Your task to perform on an android device: Search for "razer deathadder" on target, select the first entry, and add it to the cart. Image 0: 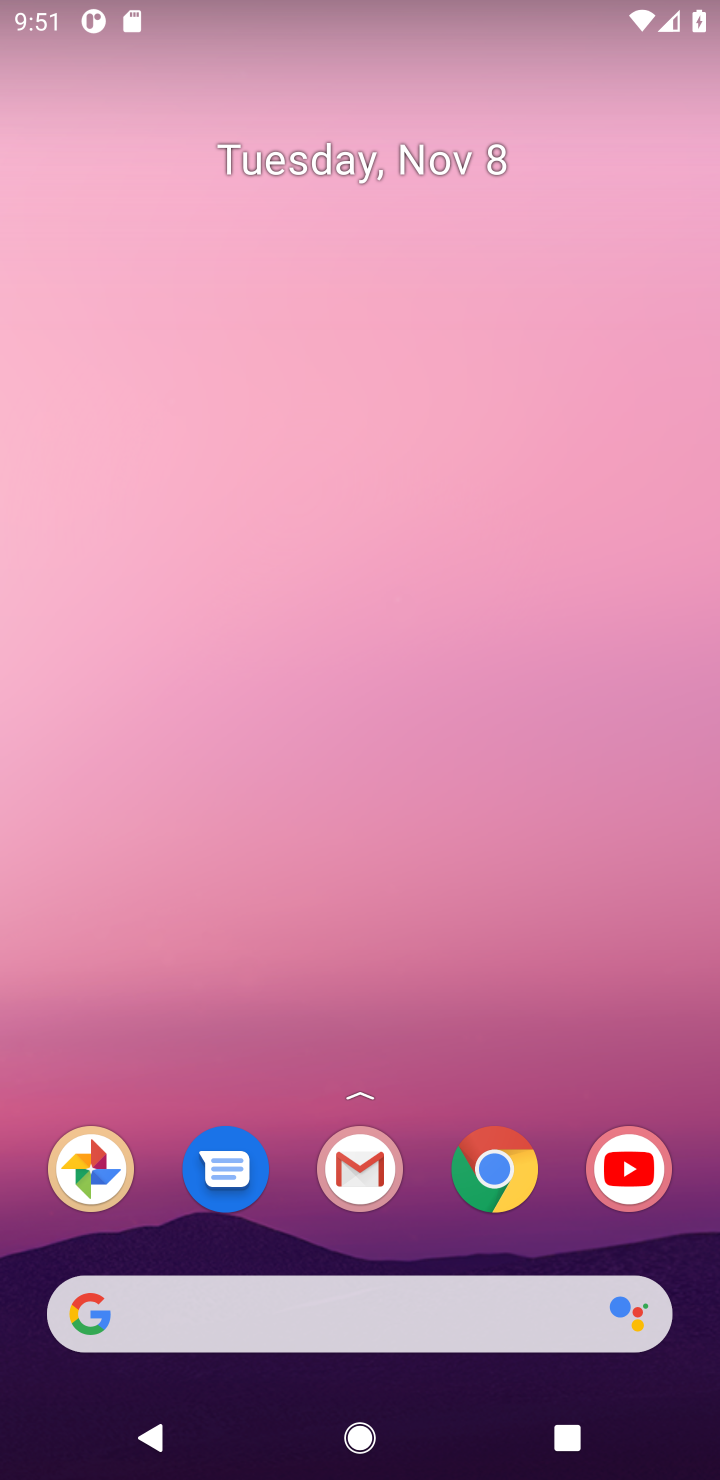
Step 0: click (501, 1169)
Your task to perform on an android device: Search for "razer deathadder" on target, select the first entry, and add it to the cart. Image 1: 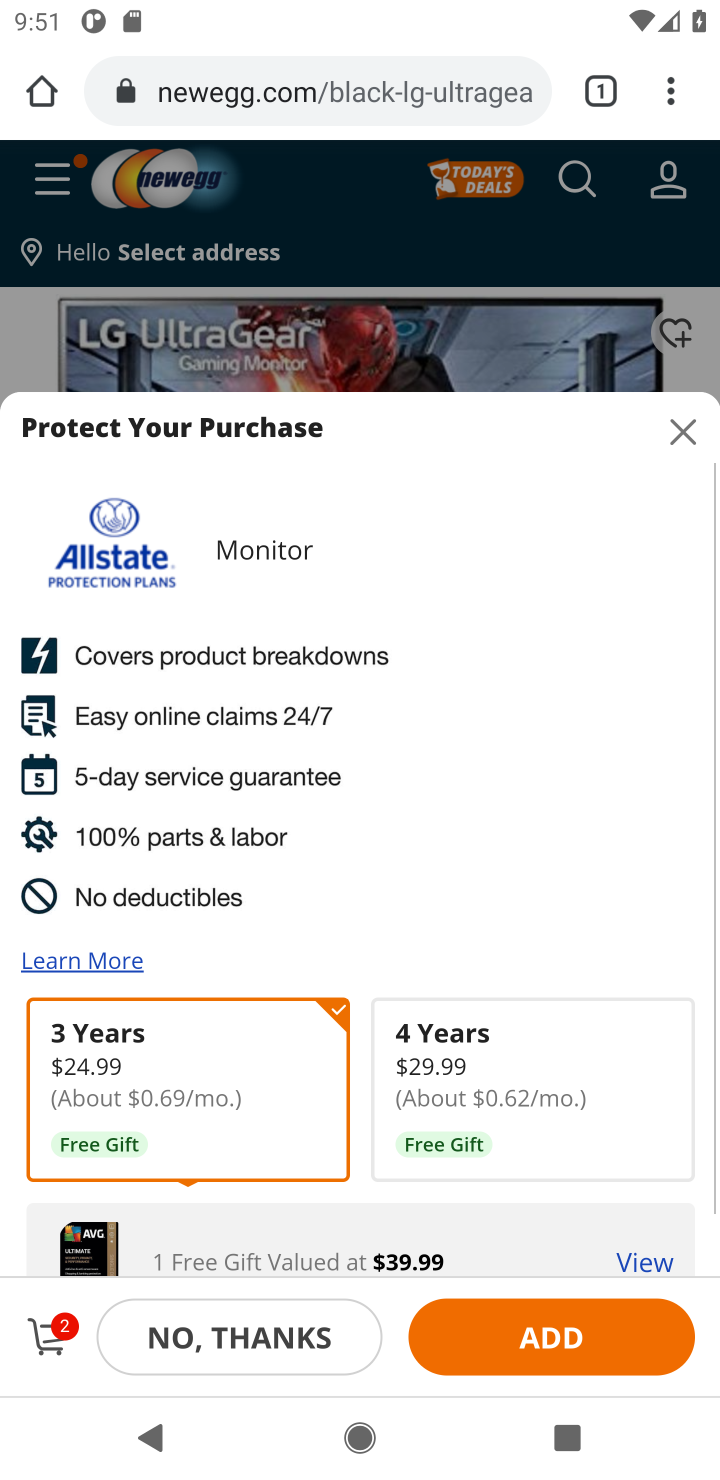
Step 1: click (474, 87)
Your task to perform on an android device: Search for "razer deathadder" on target, select the first entry, and add it to the cart. Image 2: 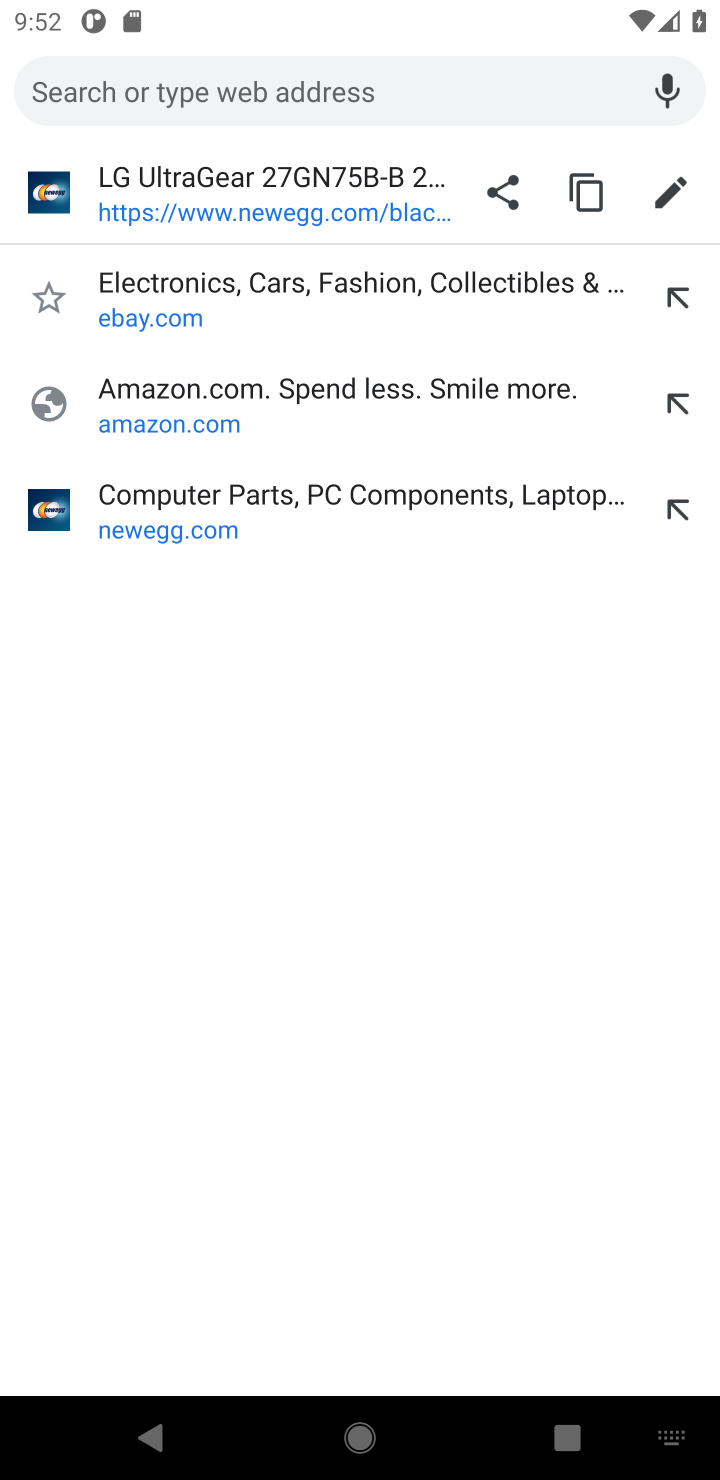
Step 2: type "target"
Your task to perform on an android device: Search for "razer deathadder" on target, select the first entry, and add it to the cart. Image 3: 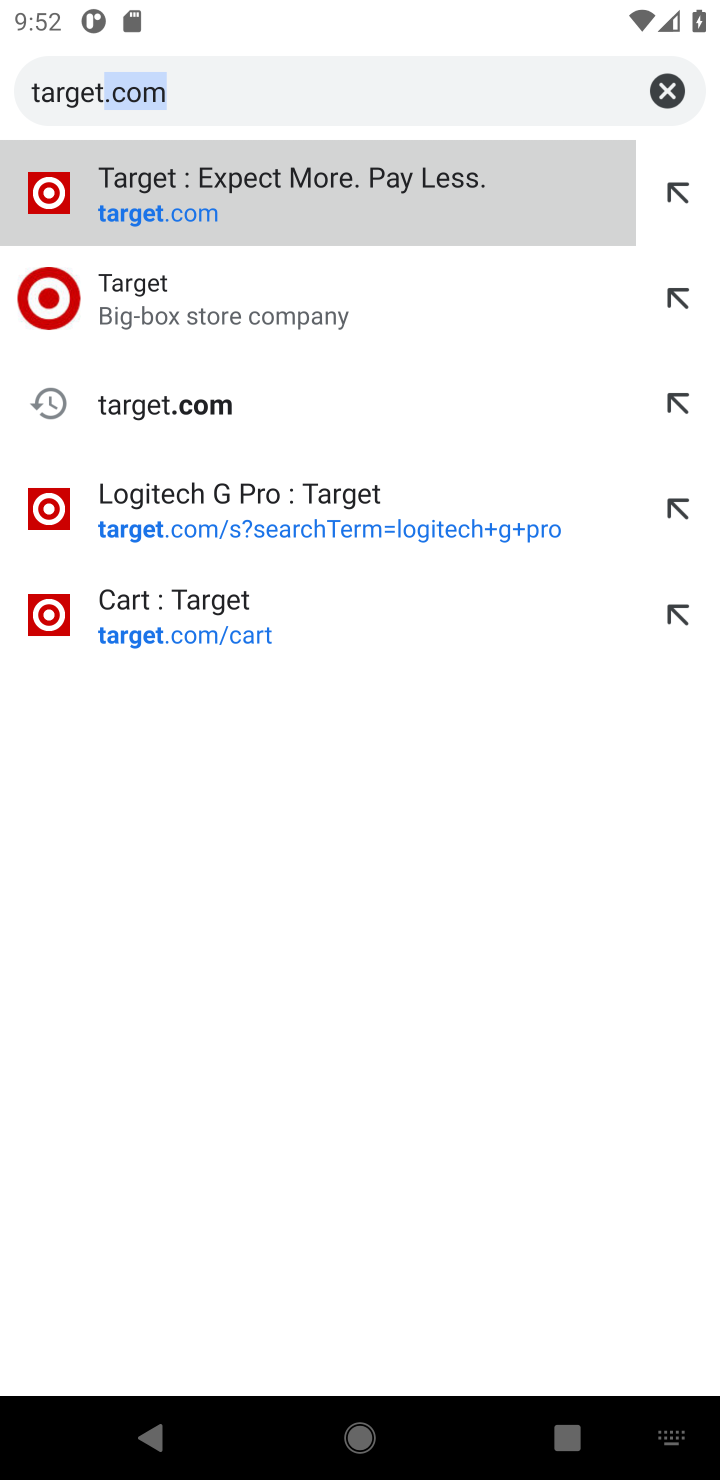
Step 3: click (221, 290)
Your task to perform on an android device: Search for "razer deathadder" on target, select the first entry, and add it to the cart. Image 4: 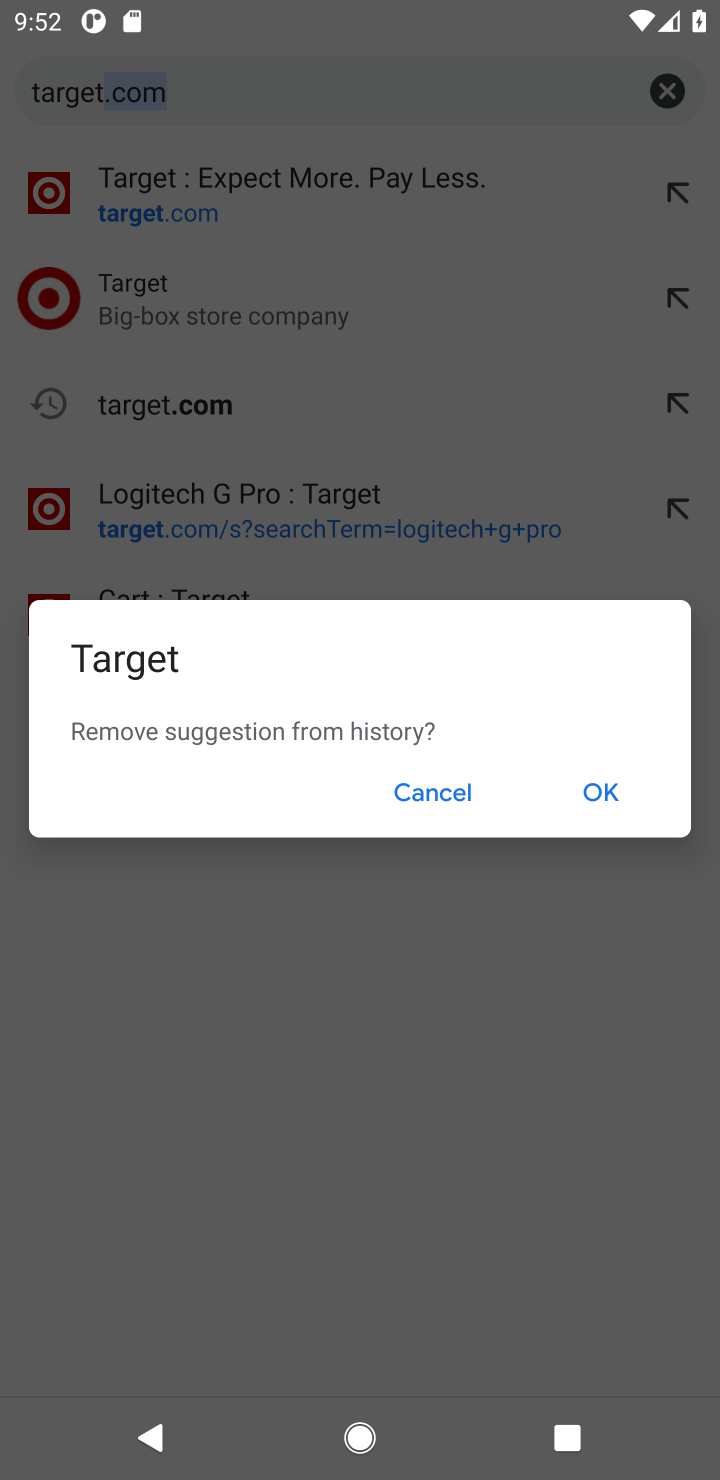
Step 4: click (606, 777)
Your task to perform on an android device: Search for "razer deathadder" on target, select the first entry, and add it to the cart. Image 5: 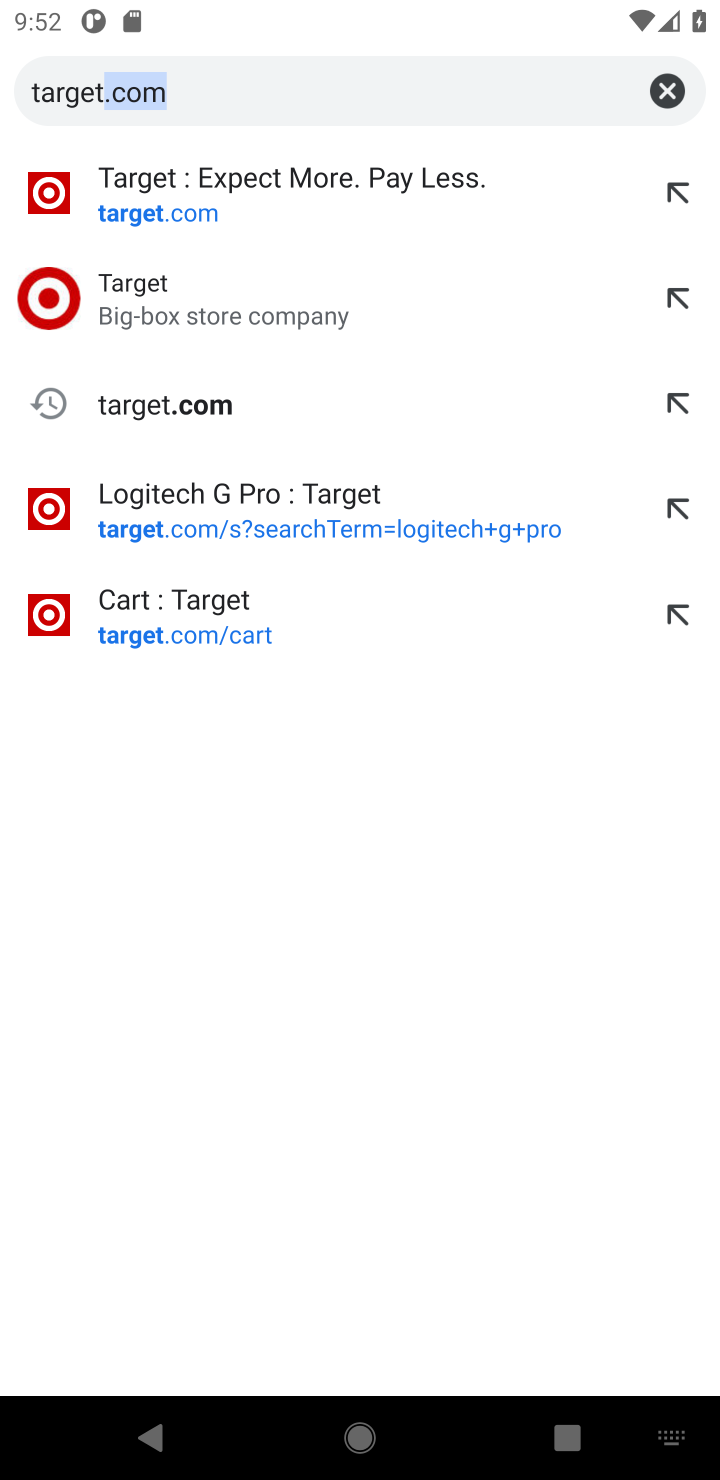
Step 5: click (414, 89)
Your task to perform on an android device: Search for "razer deathadder" on target, select the first entry, and add it to the cart. Image 6: 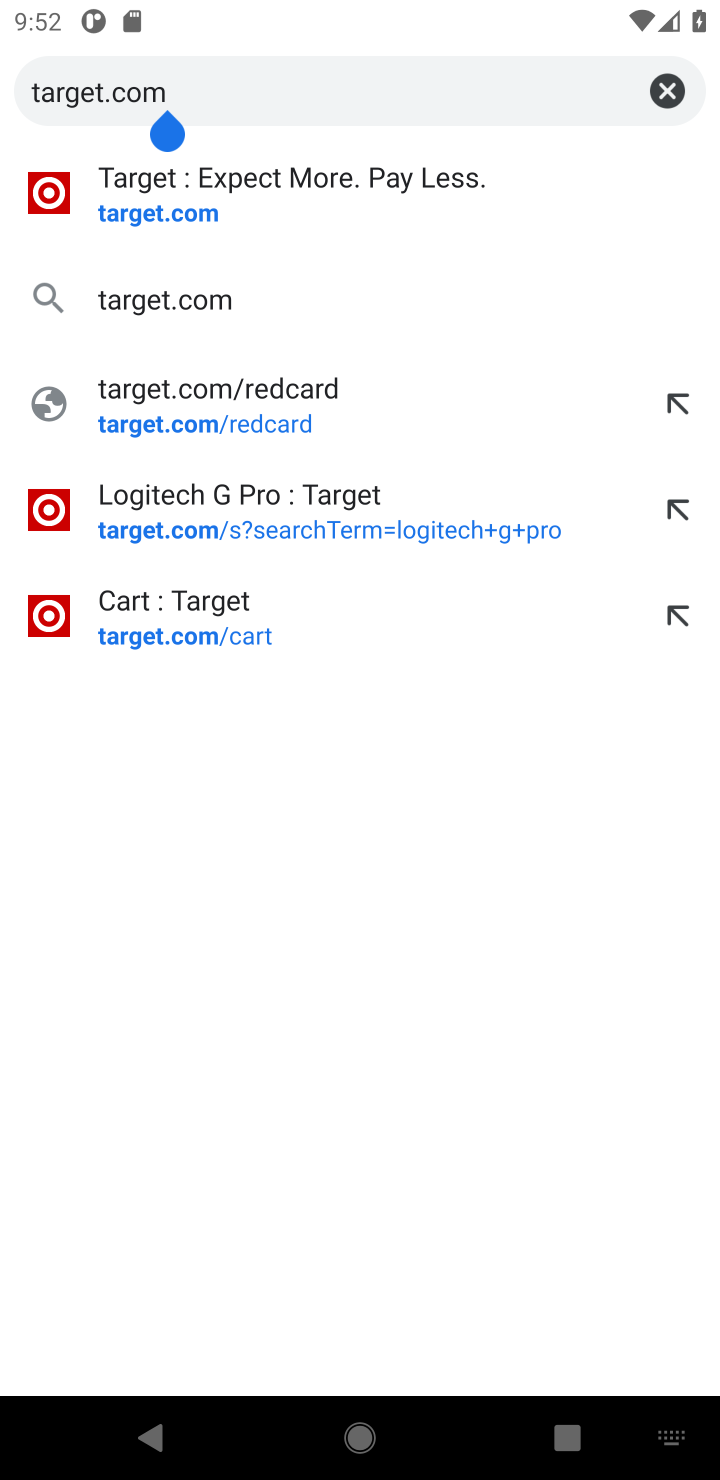
Step 6: click (204, 293)
Your task to perform on an android device: Search for "razer deathadder" on target, select the first entry, and add it to the cart. Image 7: 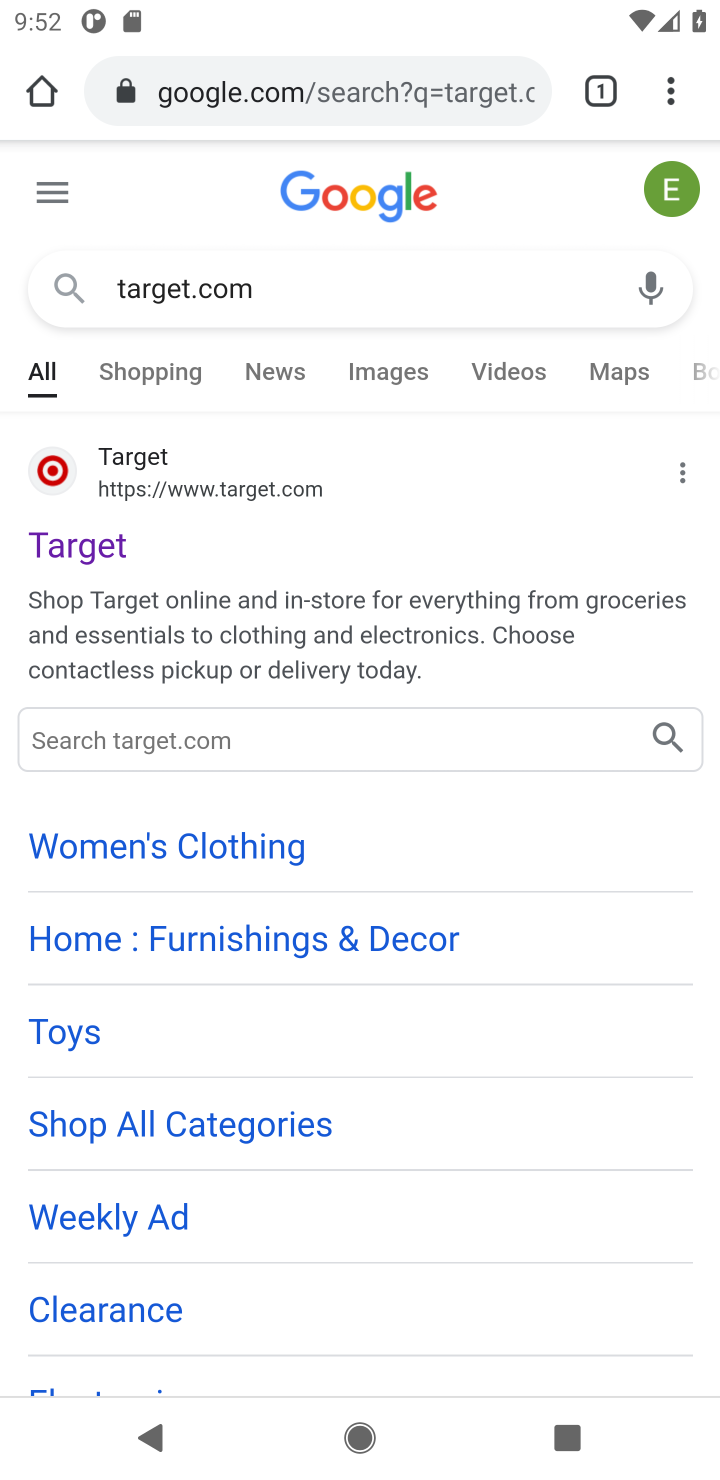
Step 7: click (277, 484)
Your task to perform on an android device: Search for "razer deathadder" on target, select the first entry, and add it to the cart. Image 8: 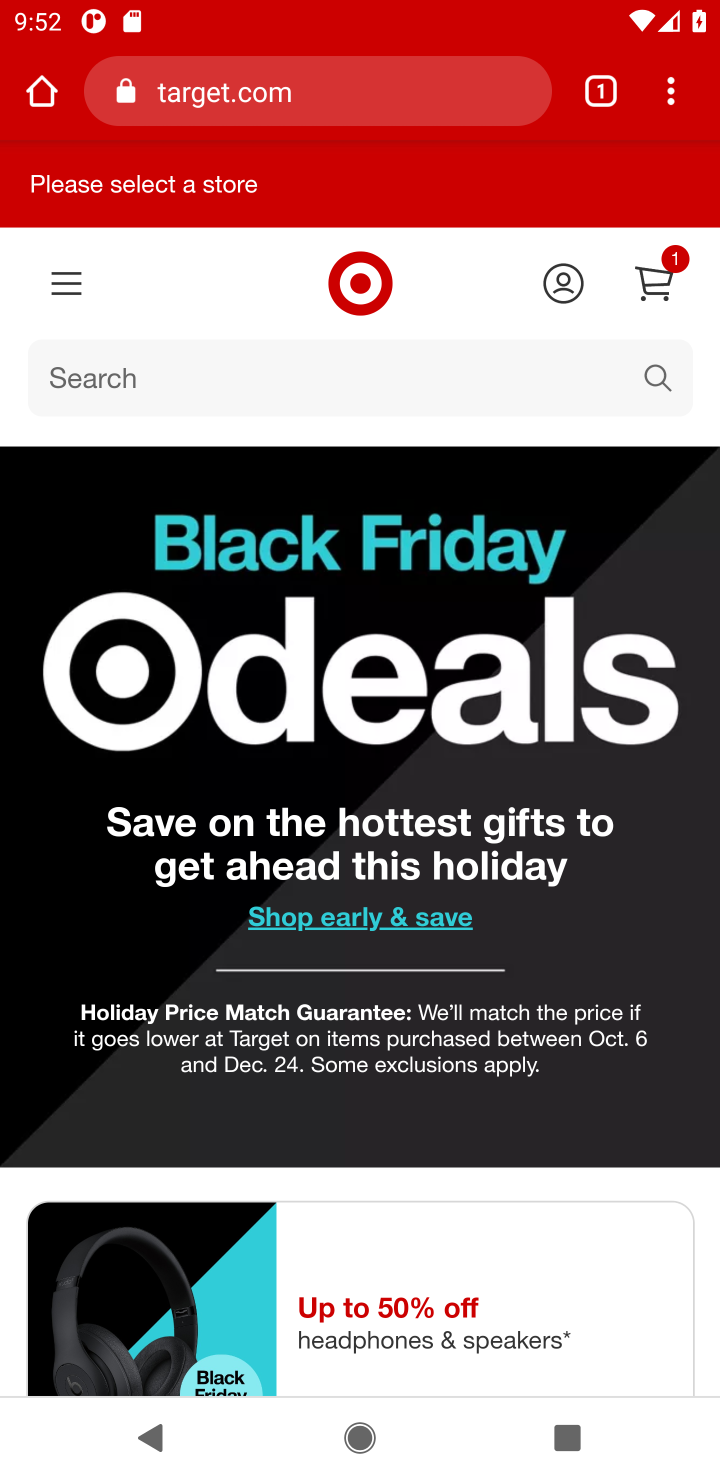
Step 8: click (663, 381)
Your task to perform on an android device: Search for "razer deathadder" on target, select the first entry, and add it to the cart. Image 9: 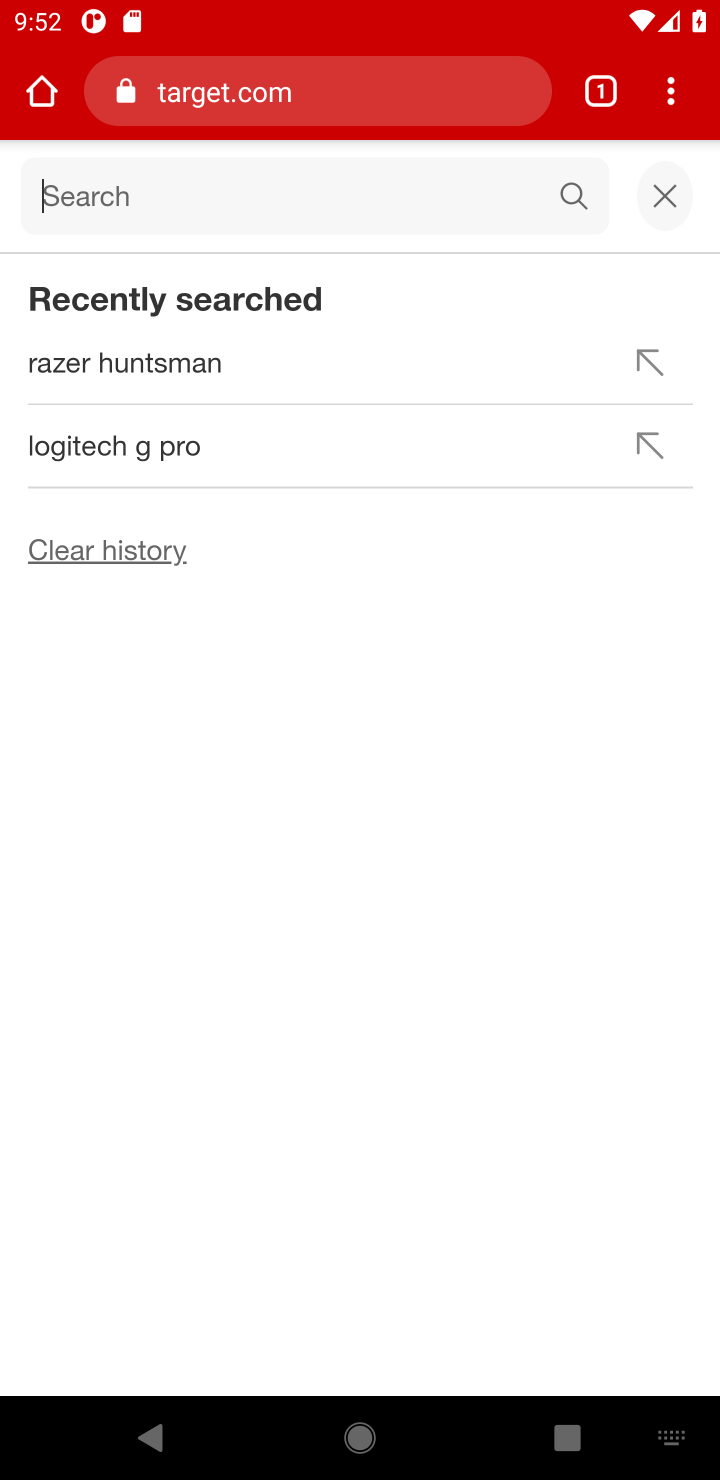
Step 9: type "razer deathadder"
Your task to perform on an android device: Search for "razer deathadder" on target, select the first entry, and add it to the cart. Image 10: 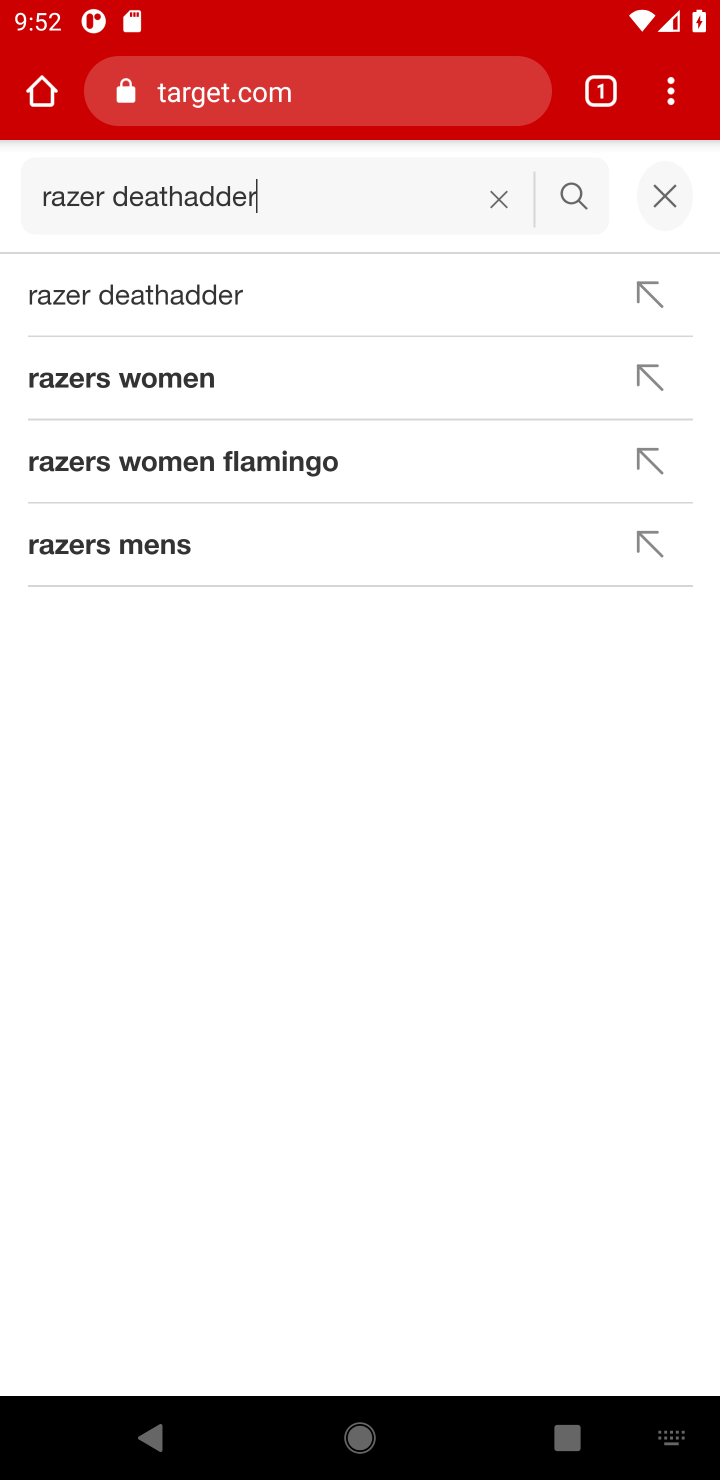
Step 10: click (211, 294)
Your task to perform on an android device: Search for "razer deathadder" on target, select the first entry, and add it to the cart. Image 11: 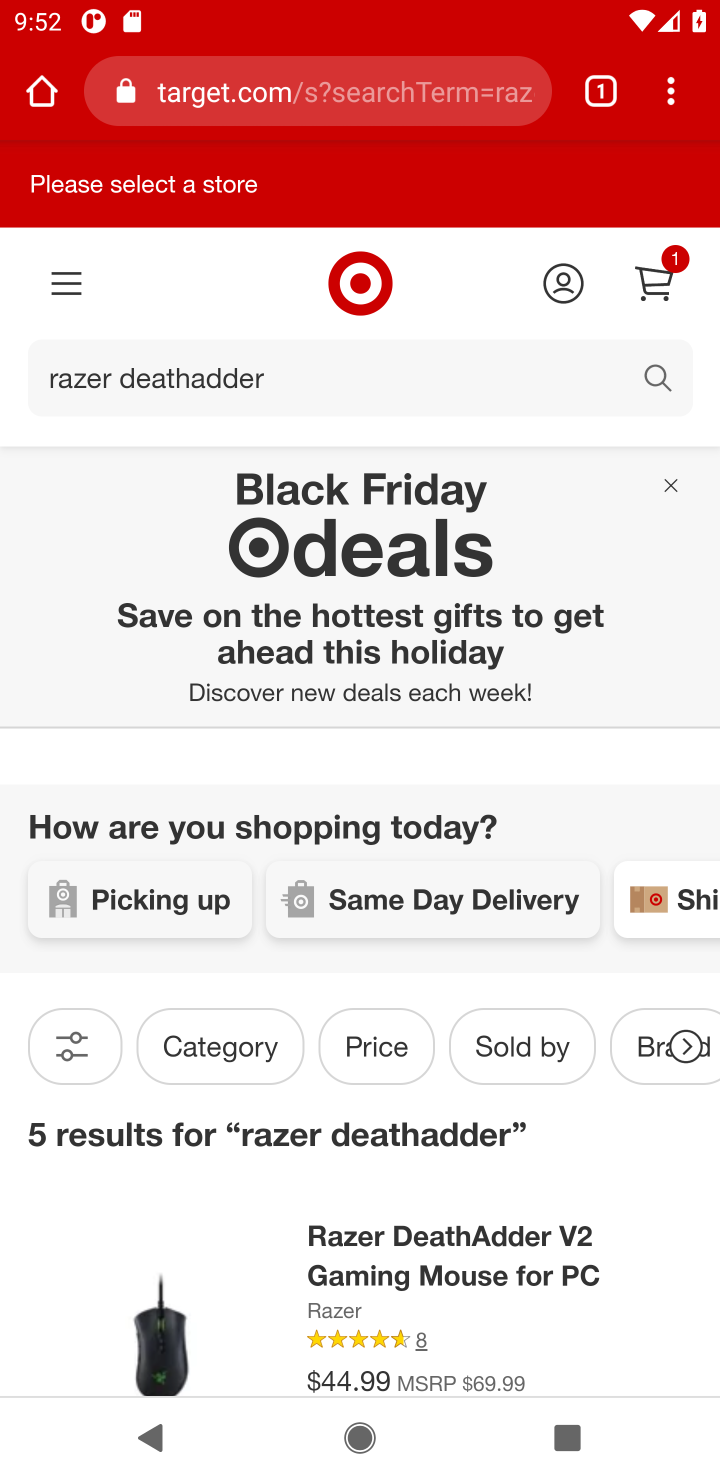
Step 11: drag from (547, 1313) to (533, 701)
Your task to perform on an android device: Search for "razer deathadder" on target, select the first entry, and add it to the cart. Image 12: 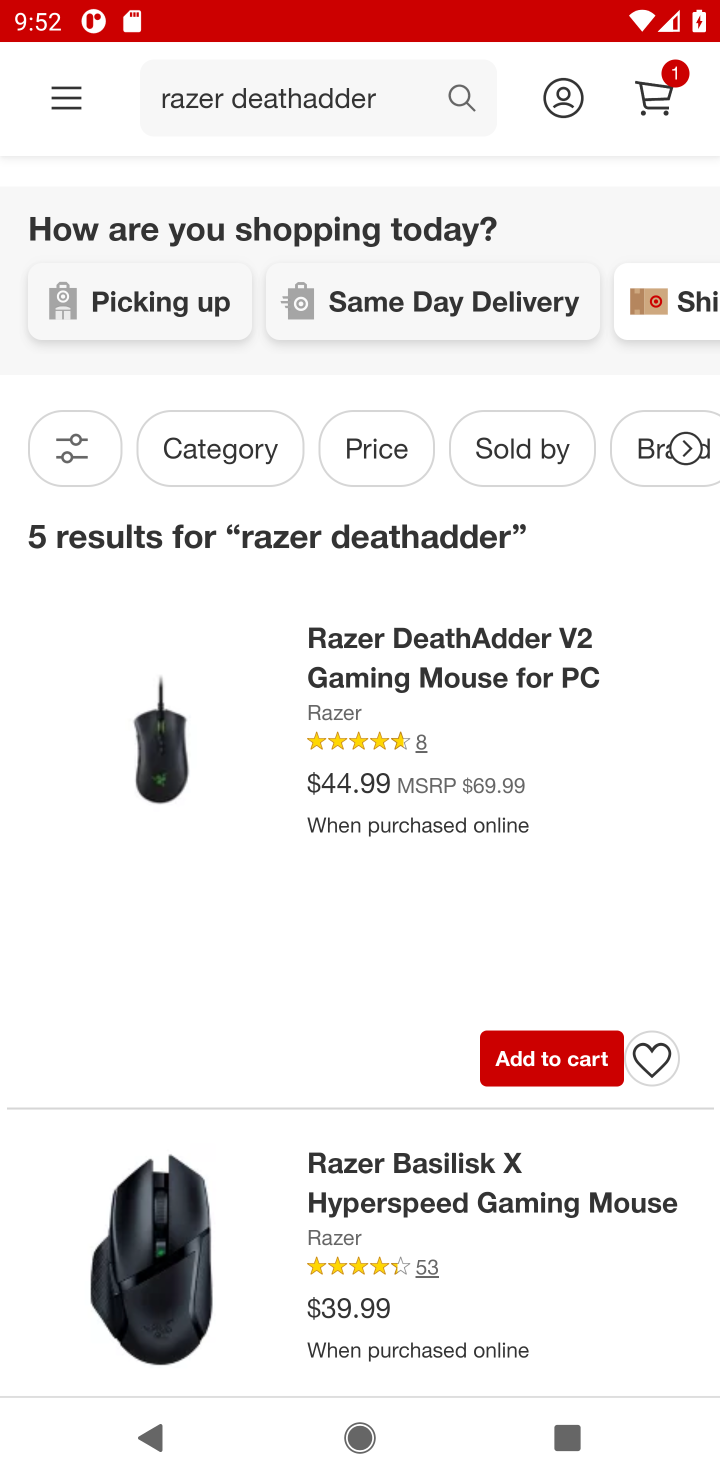
Step 12: click (140, 700)
Your task to perform on an android device: Search for "razer deathadder" on target, select the first entry, and add it to the cart. Image 13: 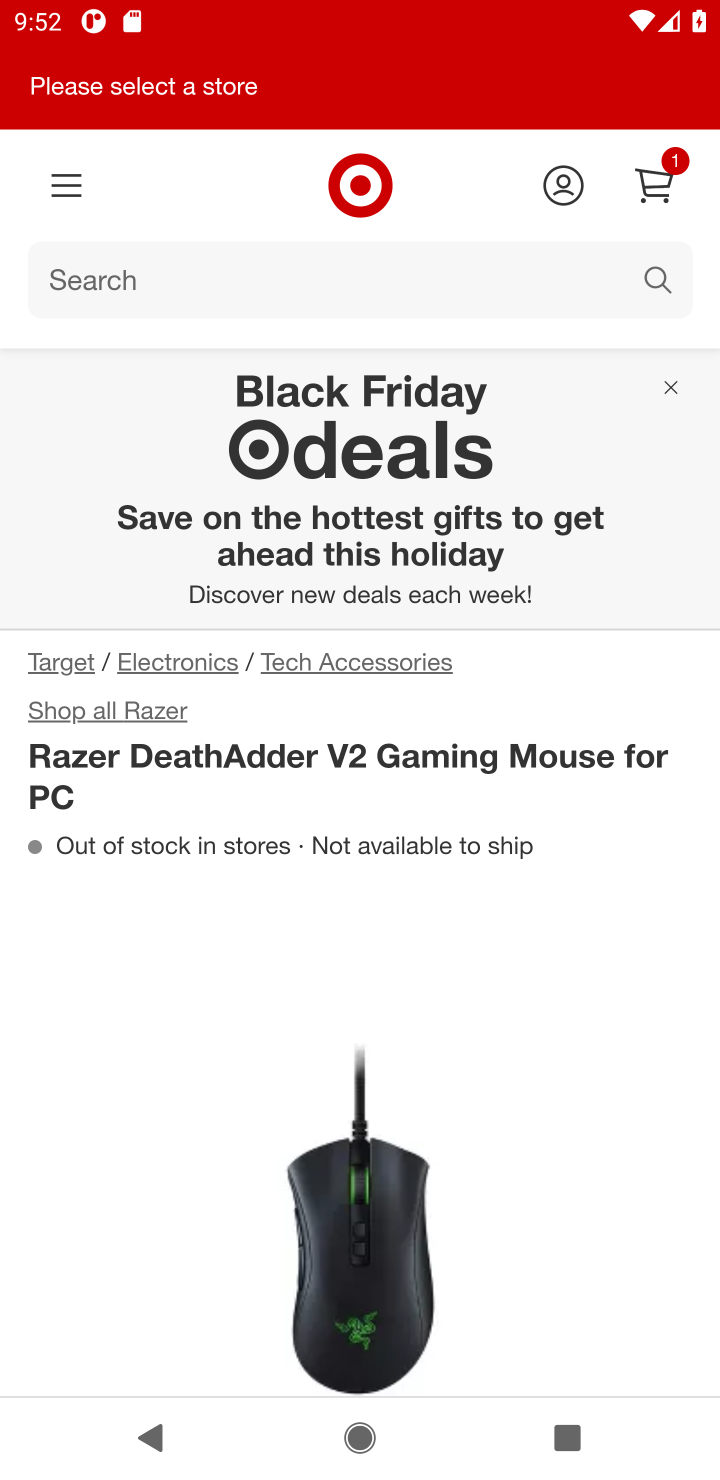
Step 13: drag from (514, 988) to (508, 331)
Your task to perform on an android device: Search for "razer deathadder" on target, select the first entry, and add it to the cart. Image 14: 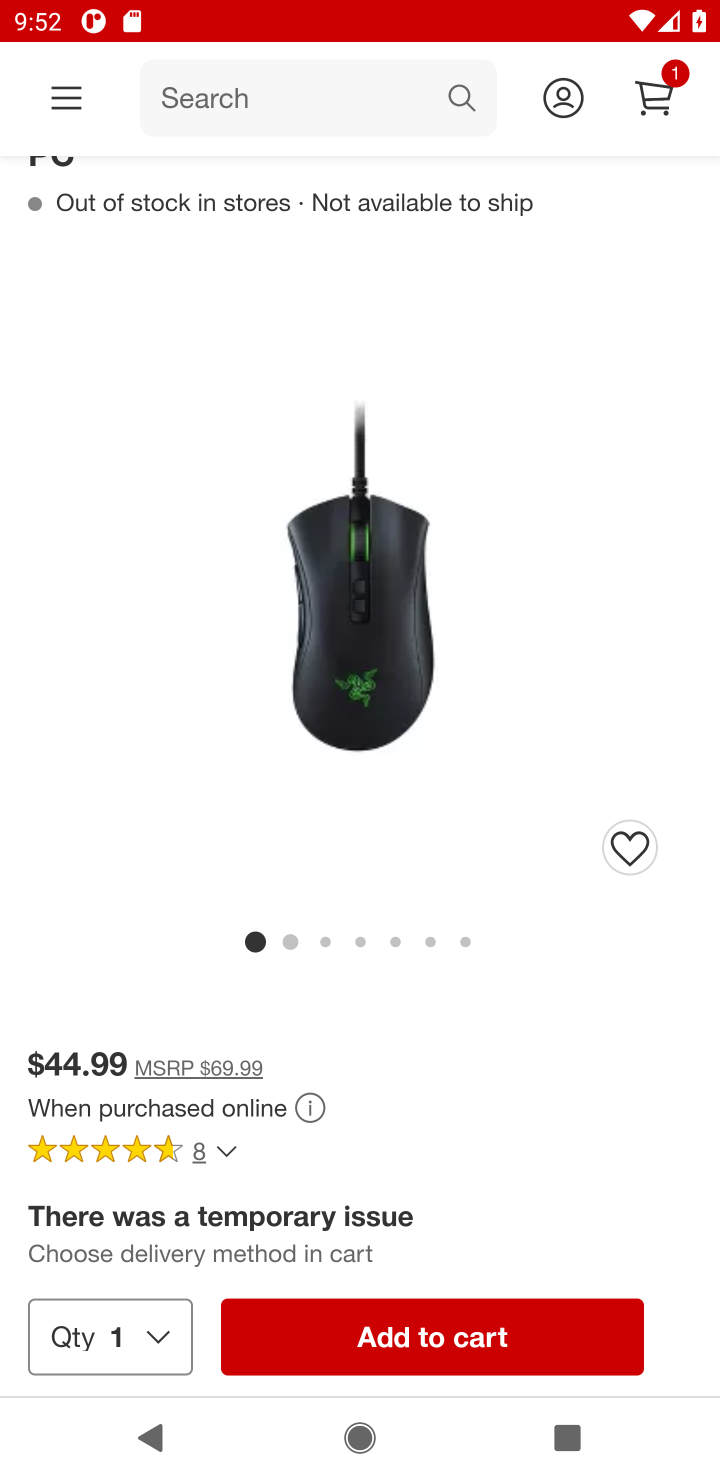
Step 14: drag from (556, 1085) to (511, 610)
Your task to perform on an android device: Search for "razer deathadder" on target, select the first entry, and add it to the cart. Image 15: 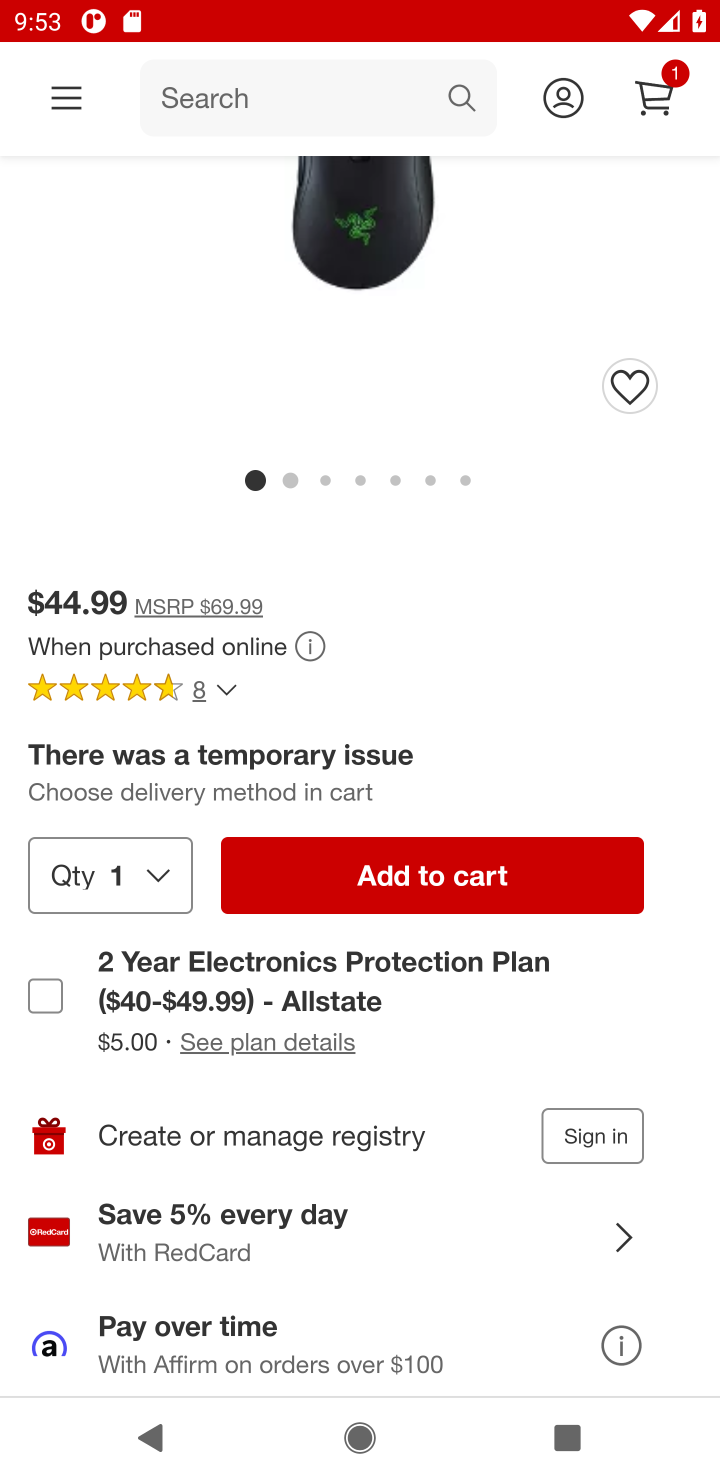
Step 15: click (487, 864)
Your task to perform on an android device: Search for "razer deathadder" on target, select the first entry, and add it to the cart. Image 16: 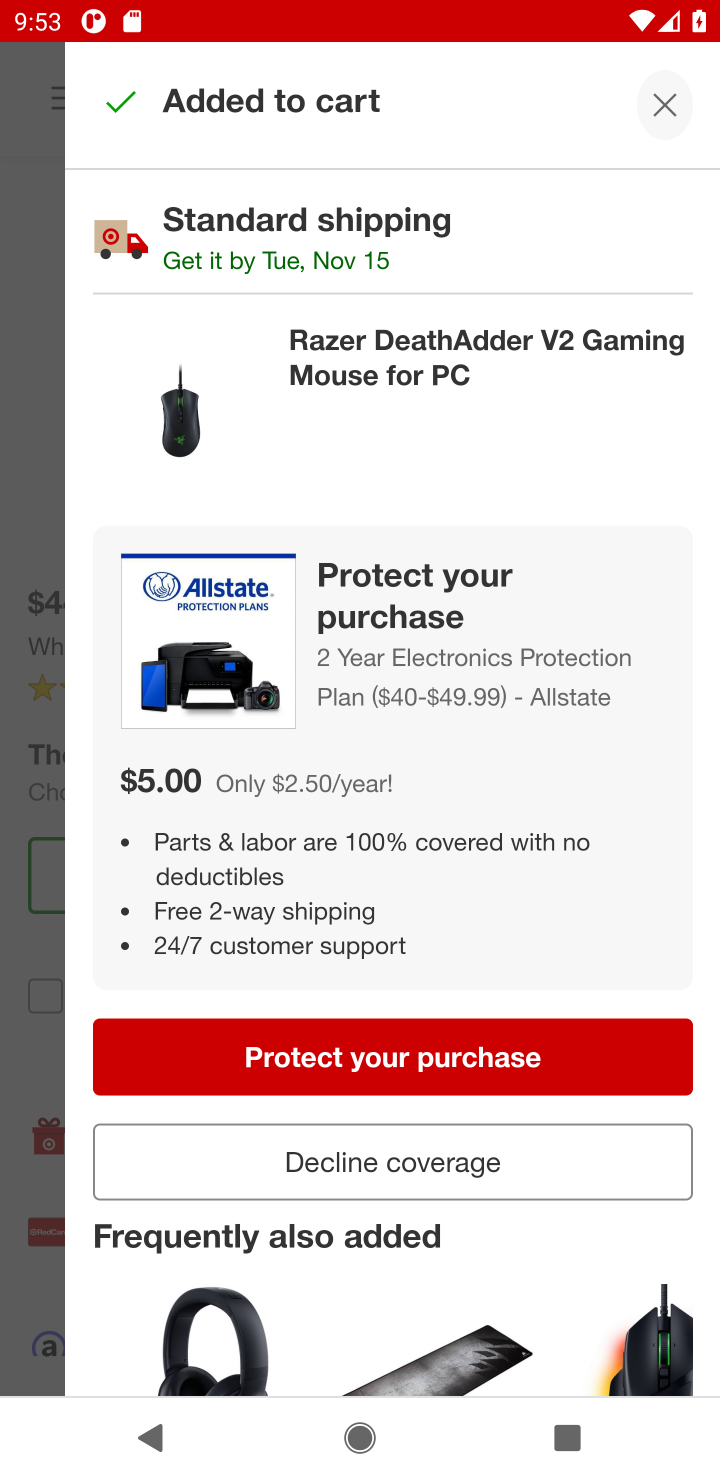
Step 16: task complete